Your task to perform on an android device: Go to Amazon Image 0: 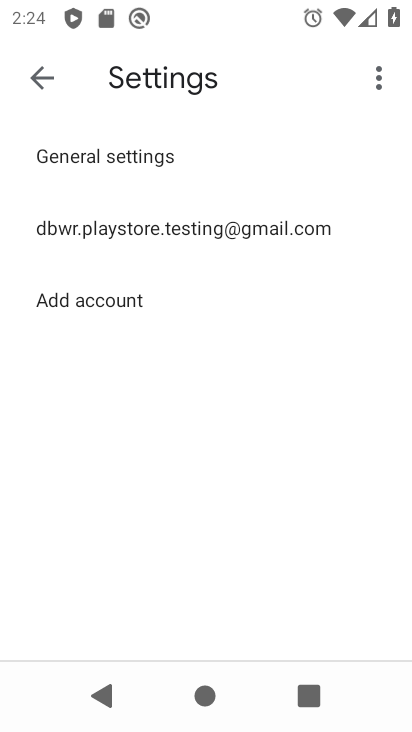
Step 0: press home button
Your task to perform on an android device: Go to Amazon Image 1: 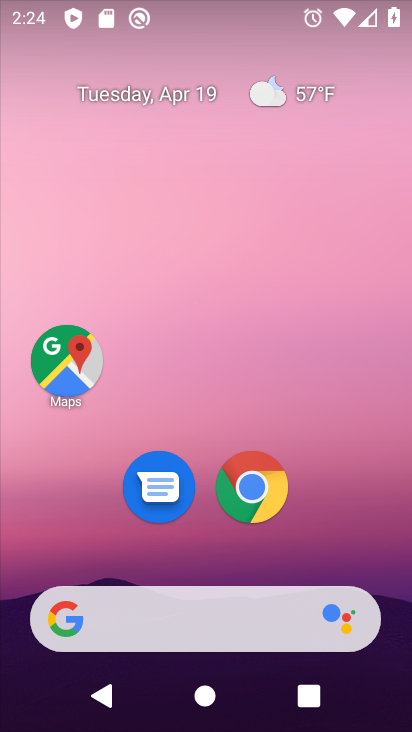
Step 1: click (267, 502)
Your task to perform on an android device: Go to Amazon Image 2: 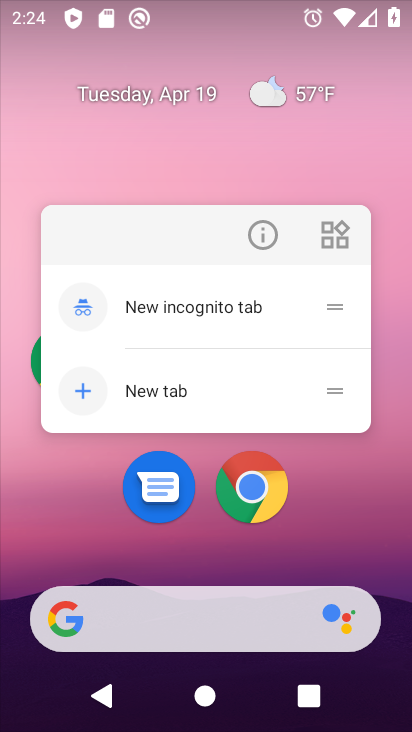
Step 2: click (273, 497)
Your task to perform on an android device: Go to Amazon Image 3: 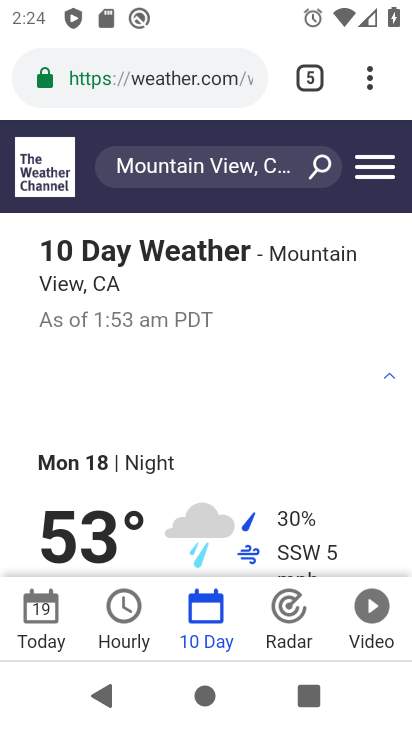
Step 3: click (316, 70)
Your task to perform on an android device: Go to Amazon Image 4: 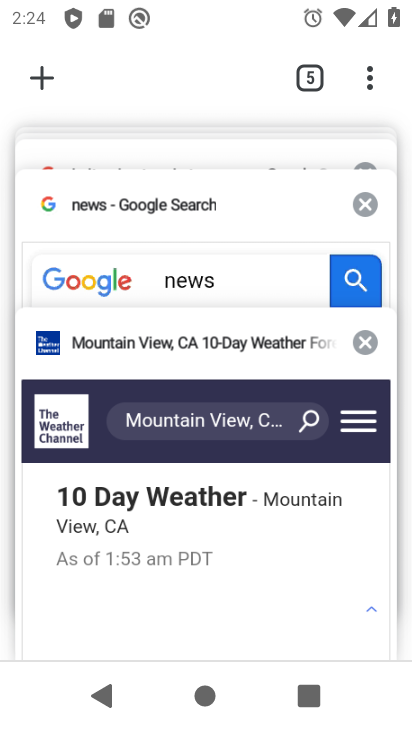
Step 4: click (36, 73)
Your task to perform on an android device: Go to Amazon Image 5: 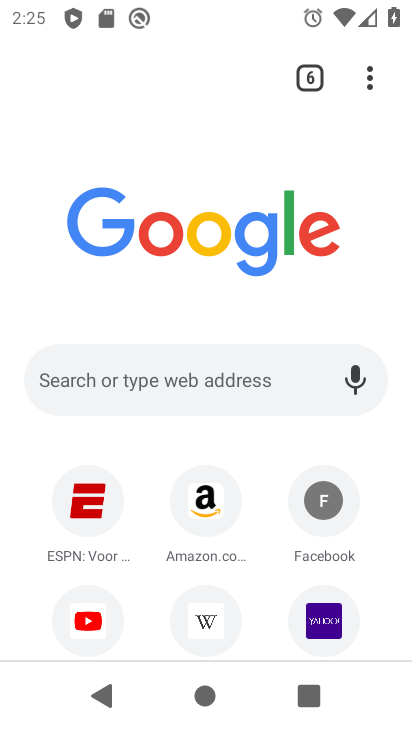
Step 5: type "amazon"
Your task to perform on an android device: Go to Amazon Image 6: 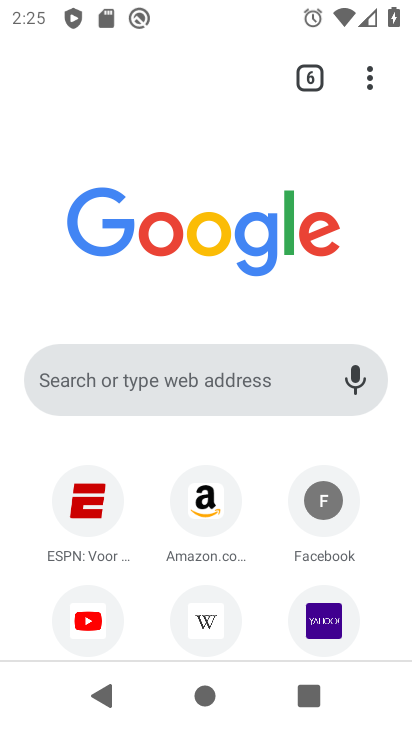
Step 6: click (207, 388)
Your task to perform on an android device: Go to Amazon Image 7: 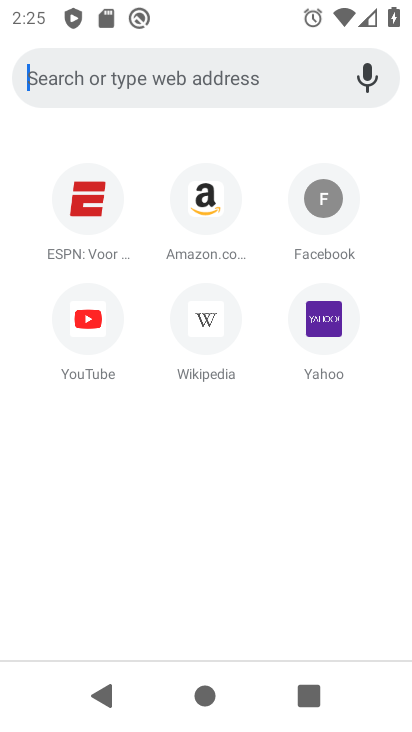
Step 7: click (139, 382)
Your task to perform on an android device: Go to Amazon Image 8: 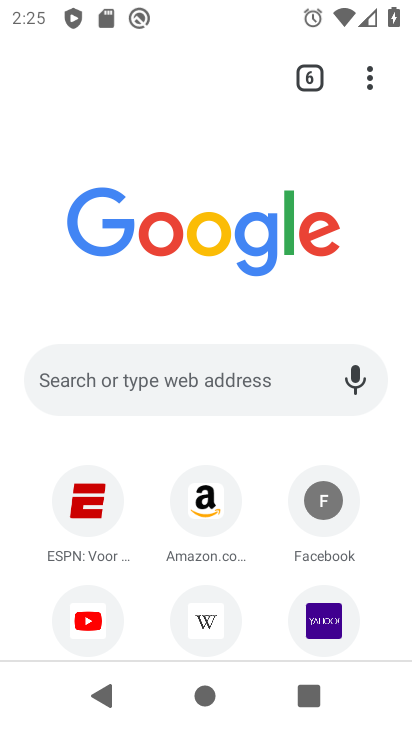
Step 8: click (145, 383)
Your task to perform on an android device: Go to Amazon Image 9: 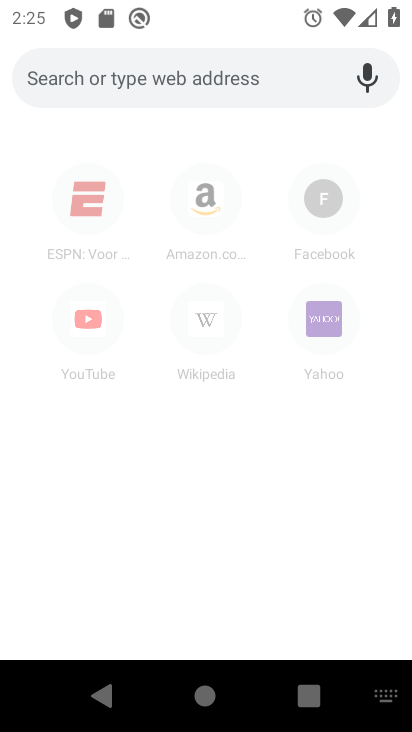
Step 9: type "amazon"
Your task to perform on an android device: Go to Amazon Image 10: 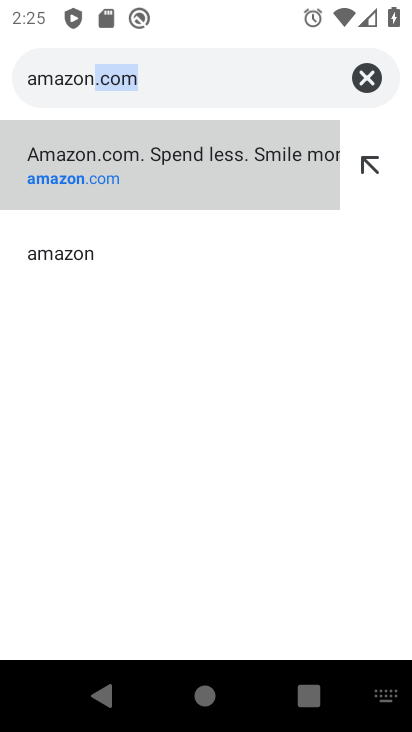
Step 10: click (190, 166)
Your task to perform on an android device: Go to Amazon Image 11: 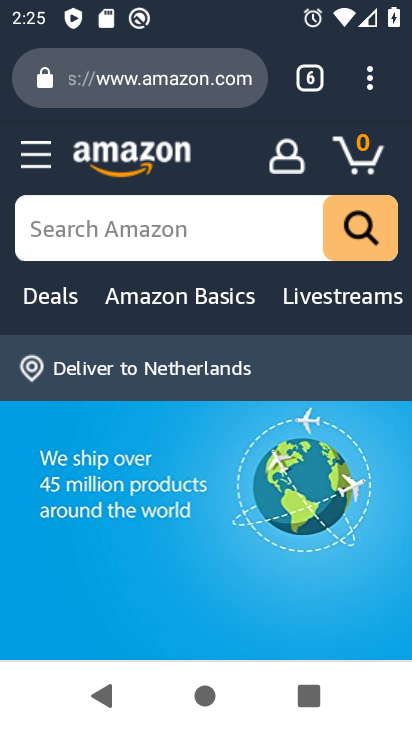
Step 11: task complete